Your task to perform on an android device: Open Amazon Image 0: 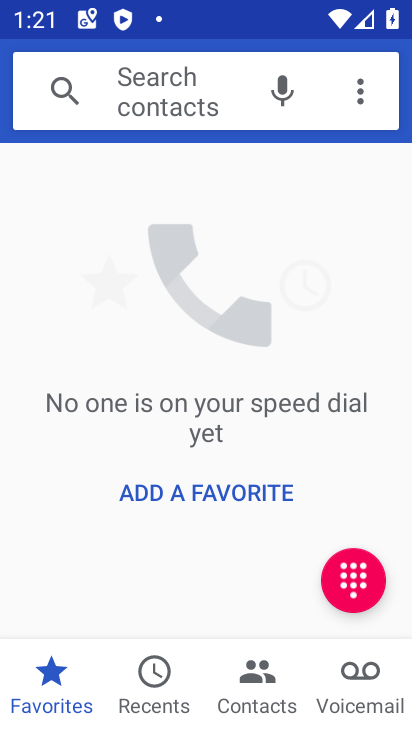
Step 0: press home button
Your task to perform on an android device: Open Amazon Image 1: 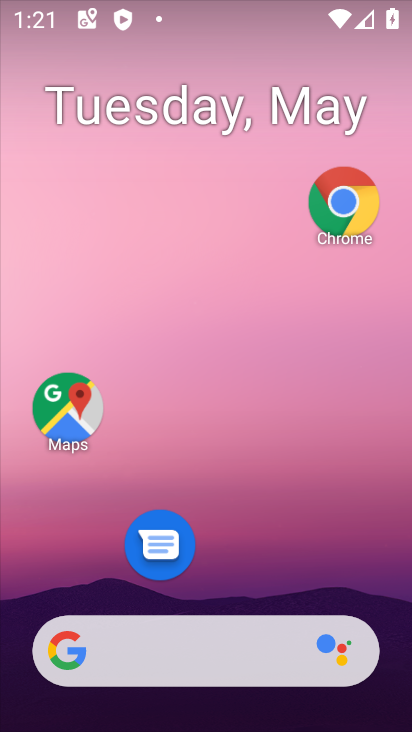
Step 1: click (351, 189)
Your task to perform on an android device: Open Amazon Image 2: 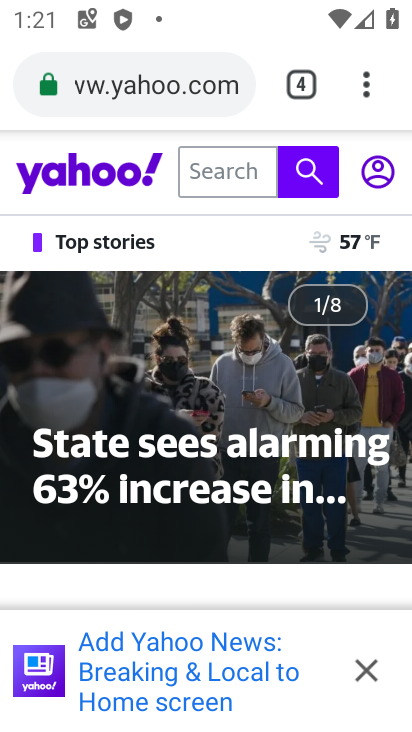
Step 2: click (302, 80)
Your task to perform on an android device: Open Amazon Image 3: 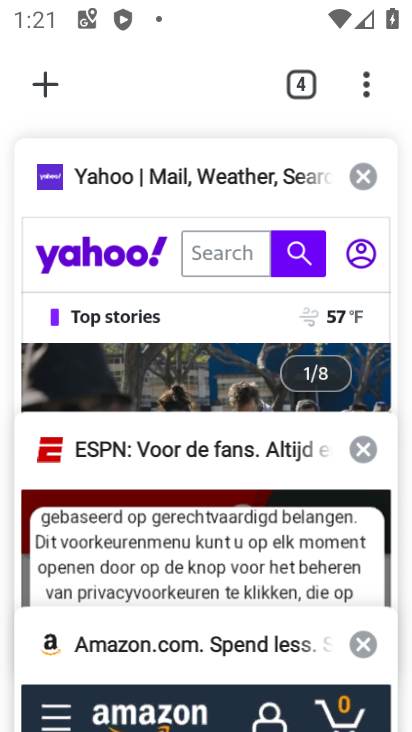
Step 3: click (45, 84)
Your task to perform on an android device: Open Amazon Image 4: 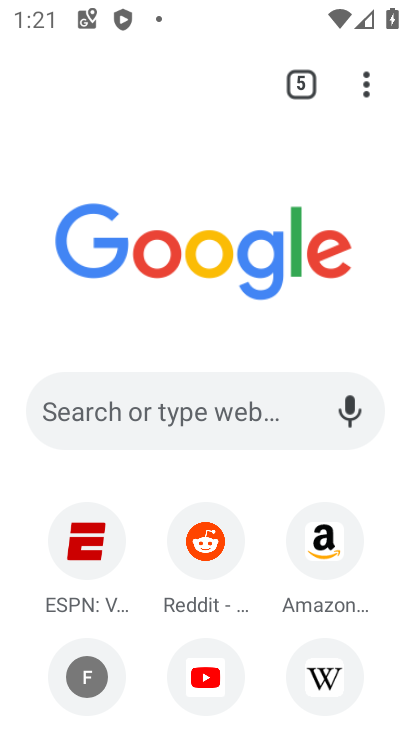
Step 4: click (330, 551)
Your task to perform on an android device: Open Amazon Image 5: 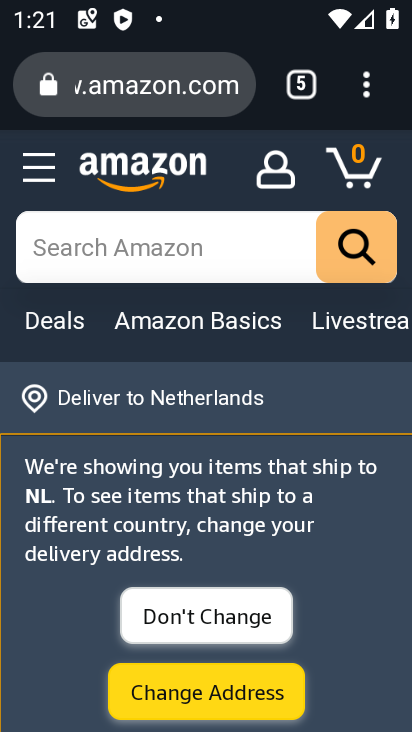
Step 5: task complete